Your task to perform on an android device: set the stopwatch Image 0: 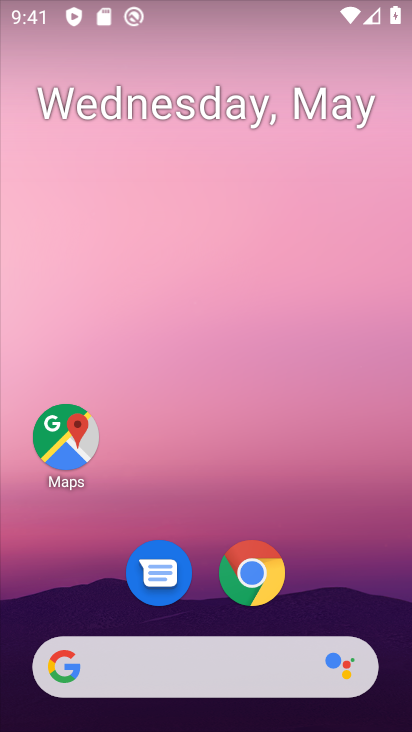
Step 0: drag from (349, 603) to (353, 220)
Your task to perform on an android device: set the stopwatch Image 1: 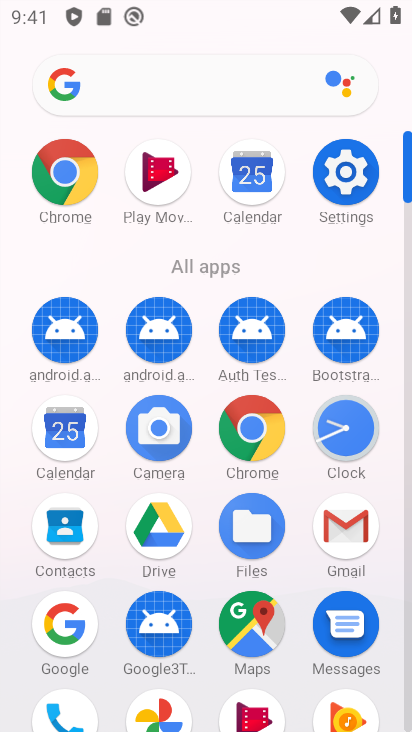
Step 1: click (360, 436)
Your task to perform on an android device: set the stopwatch Image 2: 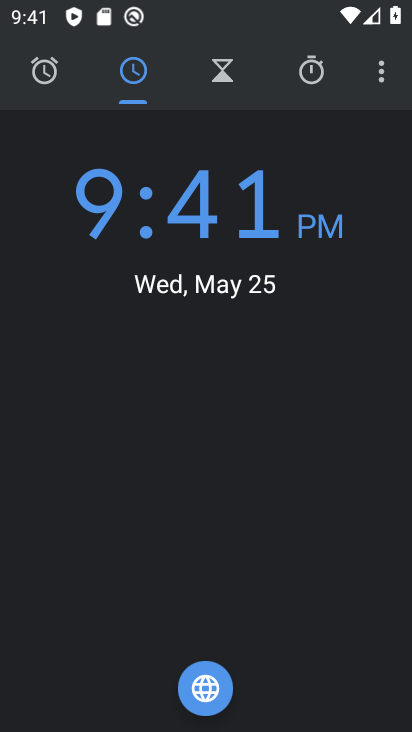
Step 2: click (304, 80)
Your task to perform on an android device: set the stopwatch Image 3: 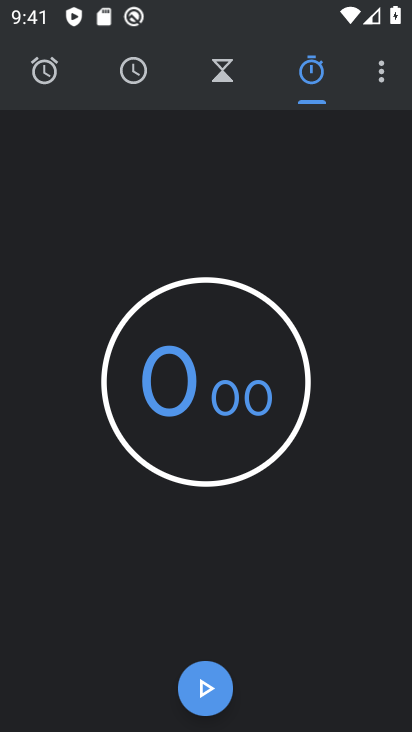
Step 3: click (201, 691)
Your task to perform on an android device: set the stopwatch Image 4: 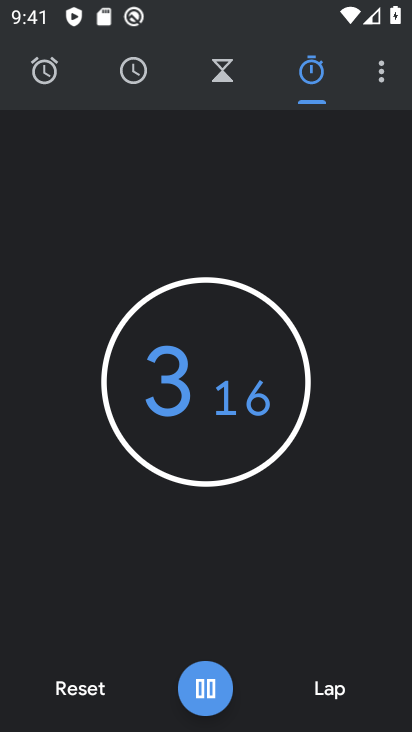
Step 4: click (207, 692)
Your task to perform on an android device: set the stopwatch Image 5: 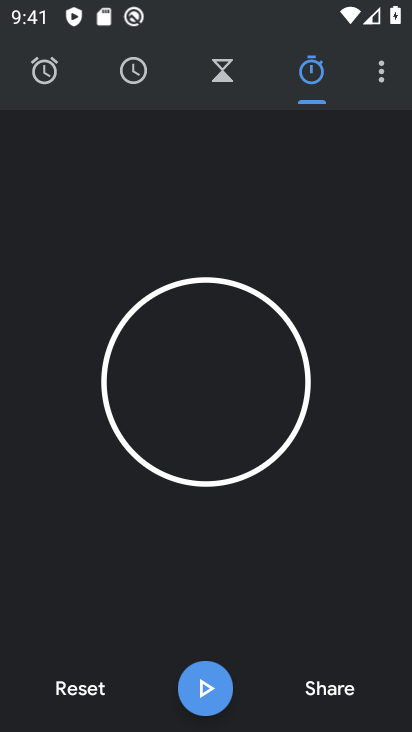
Step 5: click (228, 71)
Your task to perform on an android device: set the stopwatch Image 6: 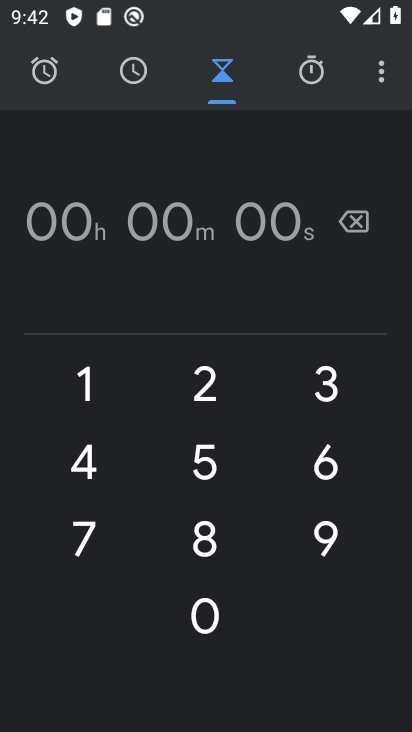
Step 6: task complete